Your task to perform on an android device: Open wifi settings Image 0: 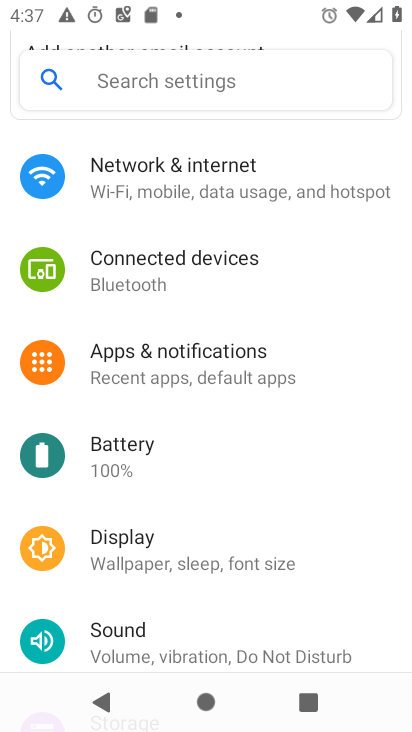
Step 0: click (220, 178)
Your task to perform on an android device: Open wifi settings Image 1: 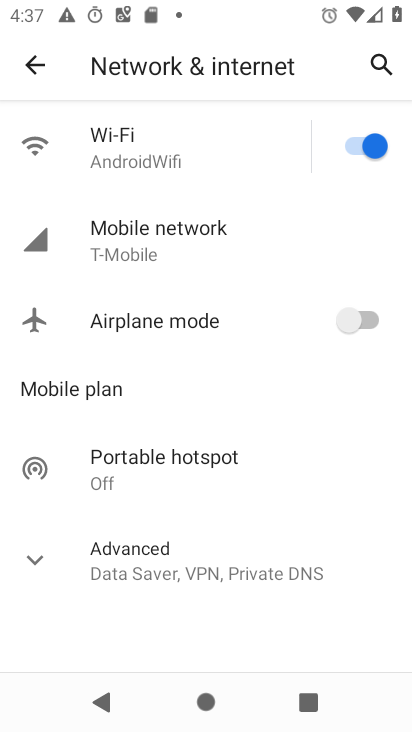
Step 1: click (233, 154)
Your task to perform on an android device: Open wifi settings Image 2: 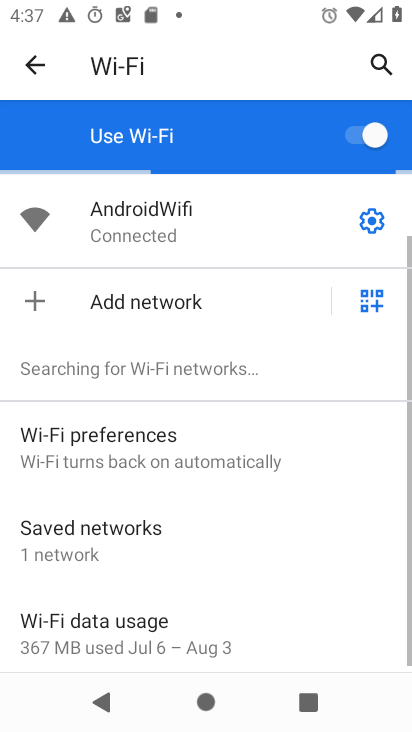
Step 2: click (380, 223)
Your task to perform on an android device: Open wifi settings Image 3: 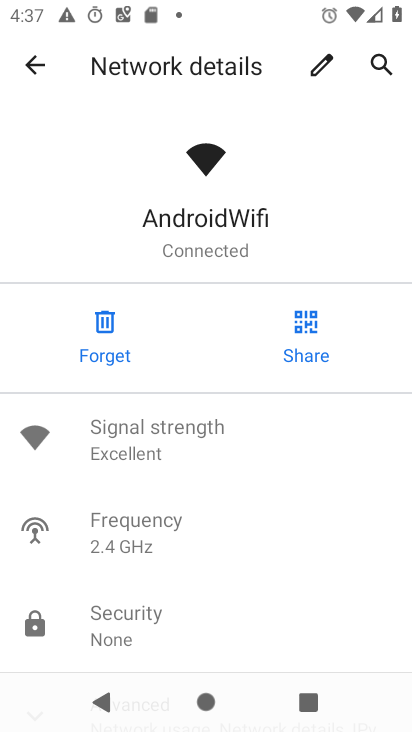
Step 3: task complete